Your task to perform on an android device: Go to sound settings Image 0: 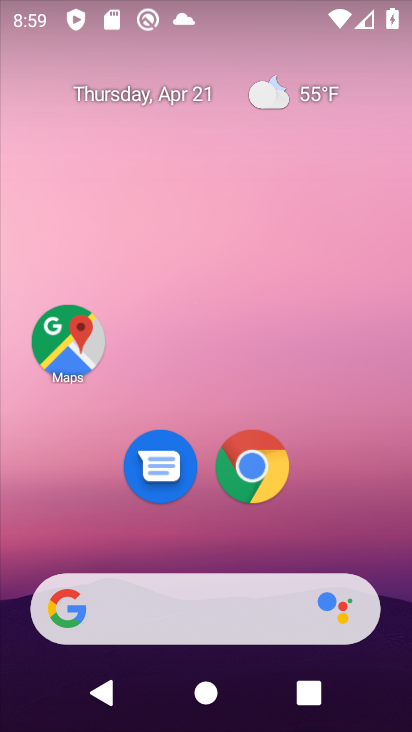
Step 0: drag from (333, 466) to (322, 145)
Your task to perform on an android device: Go to sound settings Image 1: 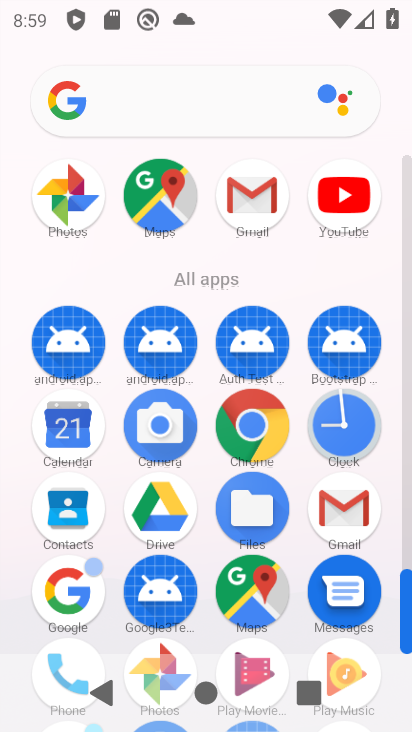
Step 1: drag from (206, 554) to (216, 224)
Your task to perform on an android device: Go to sound settings Image 2: 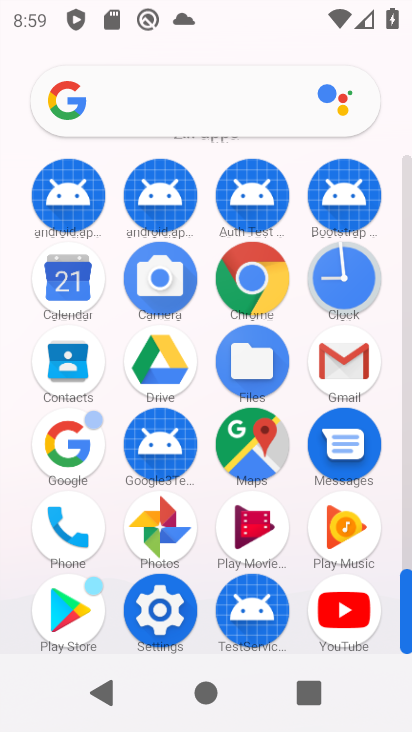
Step 2: click (171, 590)
Your task to perform on an android device: Go to sound settings Image 3: 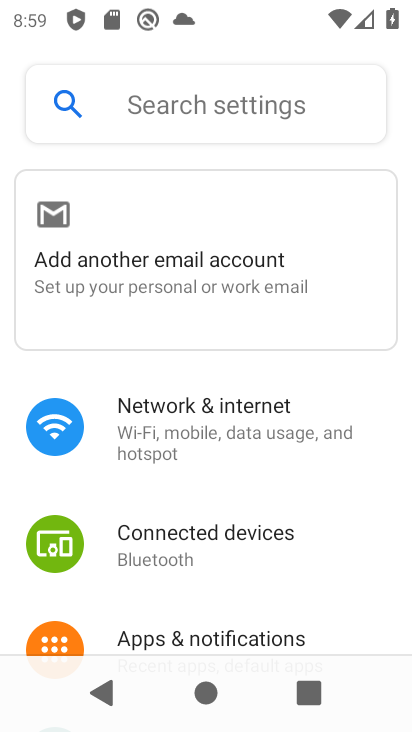
Step 3: drag from (196, 565) to (186, 208)
Your task to perform on an android device: Go to sound settings Image 4: 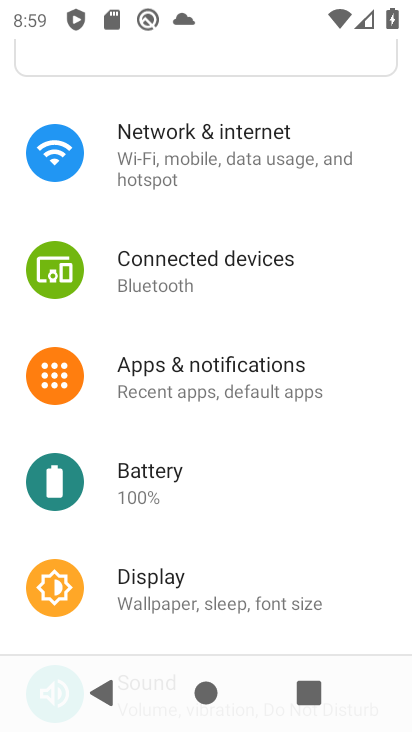
Step 4: drag from (199, 534) to (231, 247)
Your task to perform on an android device: Go to sound settings Image 5: 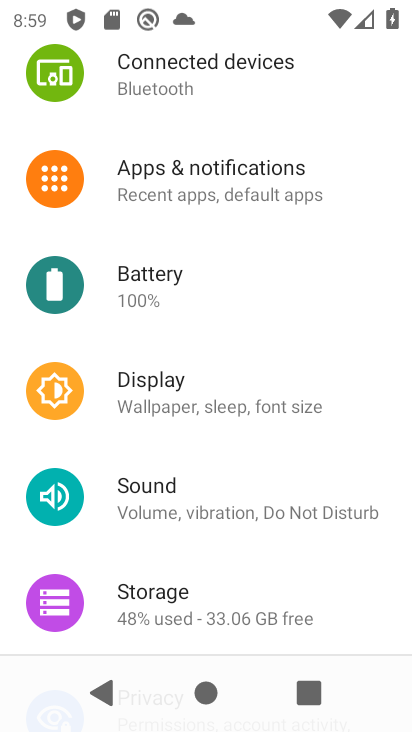
Step 5: click (146, 494)
Your task to perform on an android device: Go to sound settings Image 6: 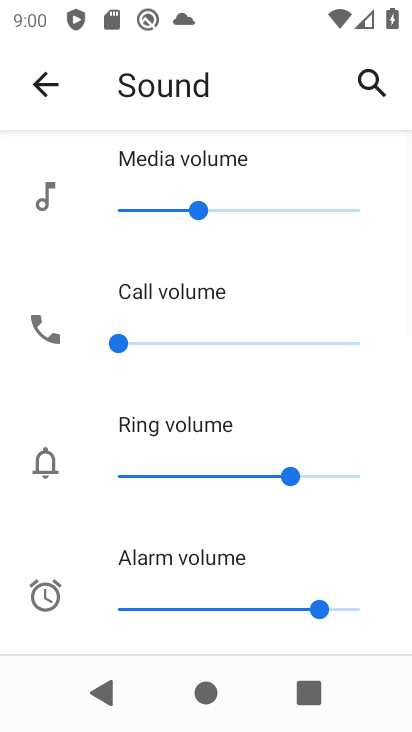
Step 6: task complete